Your task to perform on an android device: View the shopping cart on ebay. Add "energizer triple a" to the cart on ebay Image 0: 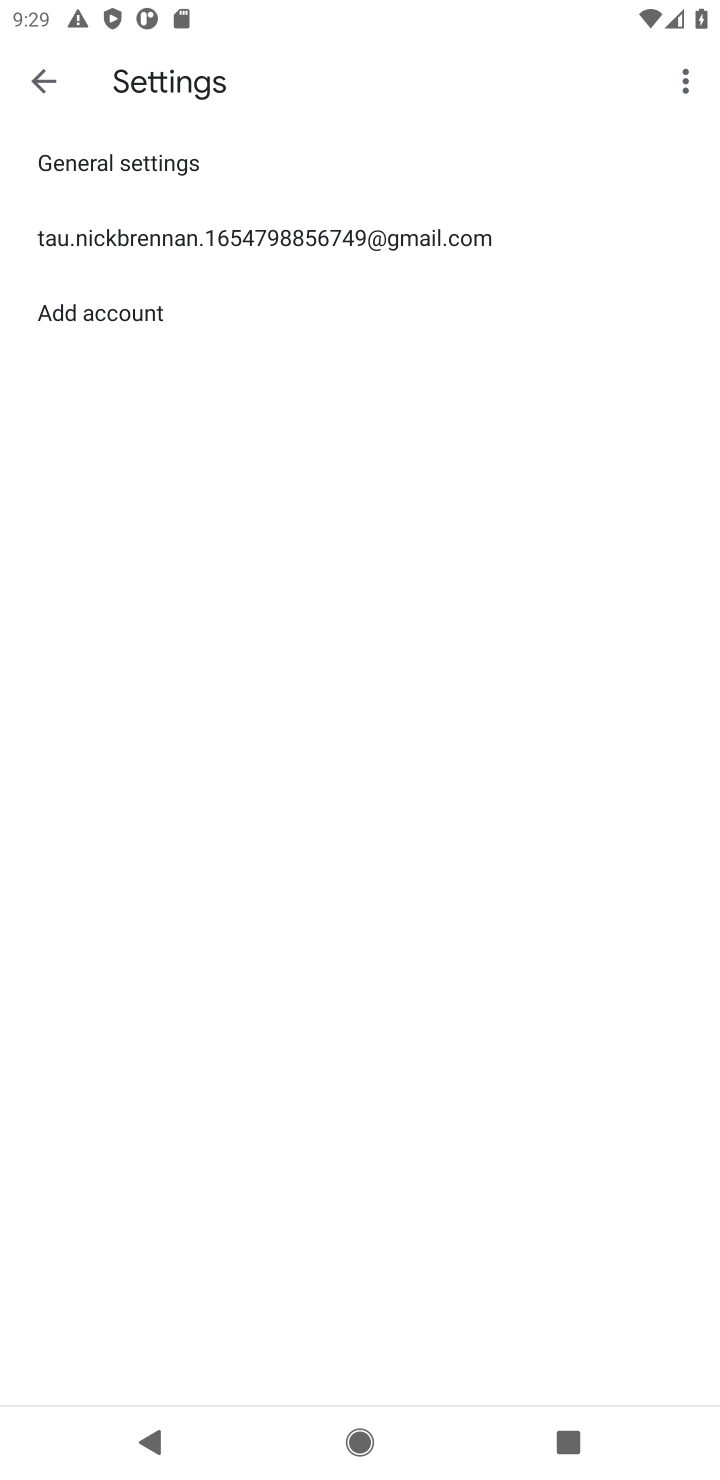
Step 0: task complete